Your task to perform on an android device: allow notifications from all sites in the chrome app Image 0: 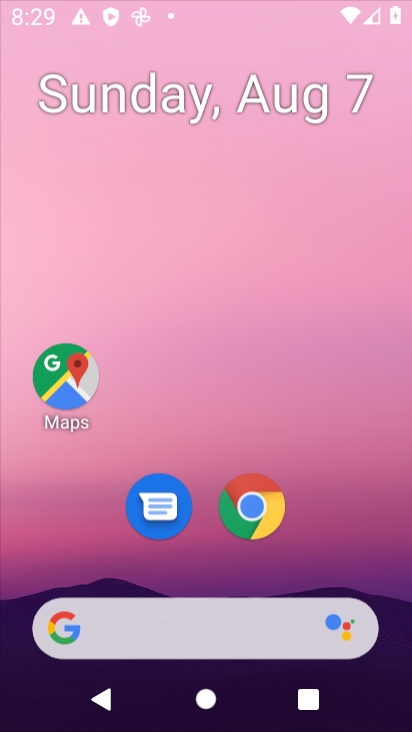
Step 0: press home button
Your task to perform on an android device: allow notifications from all sites in the chrome app Image 1: 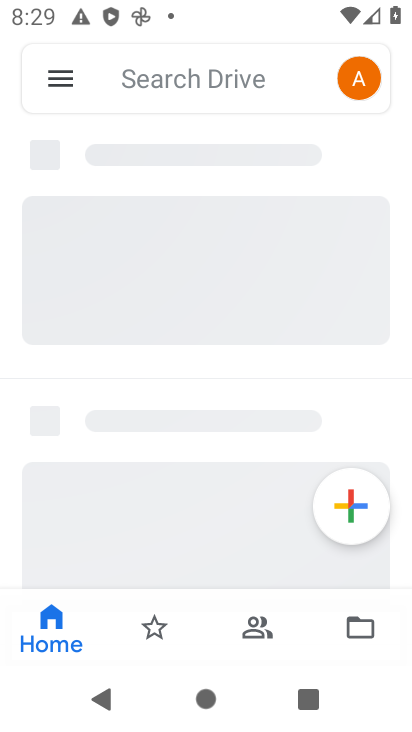
Step 1: click (313, 85)
Your task to perform on an android device: allow notifications from all sites in the chrome app Image 2: 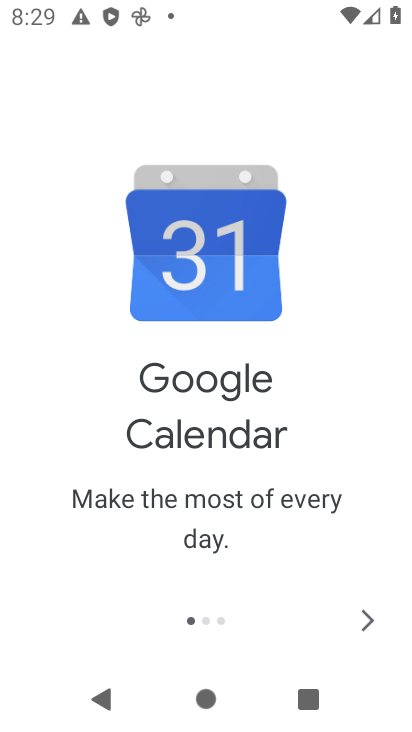
Step 2: press home button
Your task to perform on an android device: allow notifications from all sites in the chrome app Image 3: 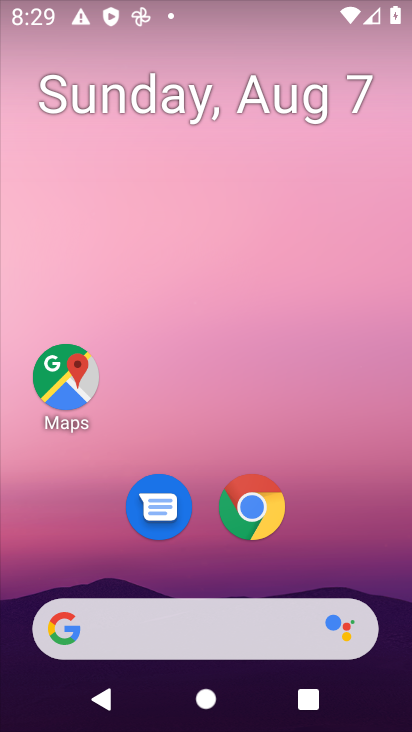
Step 3: click (256, 511)
Your task to perform on an android device: allow notifications from all sites in the chrome app Image 4: 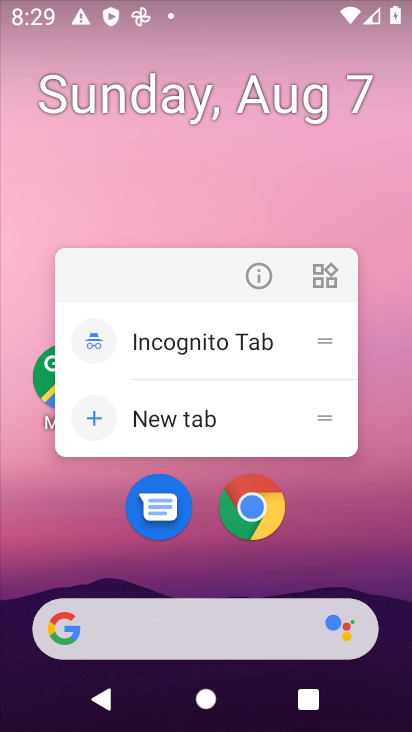
Step 4: click (256, 511)
Your task to perform on an android device: allow notifications from all sites in the chrome app Image 5: 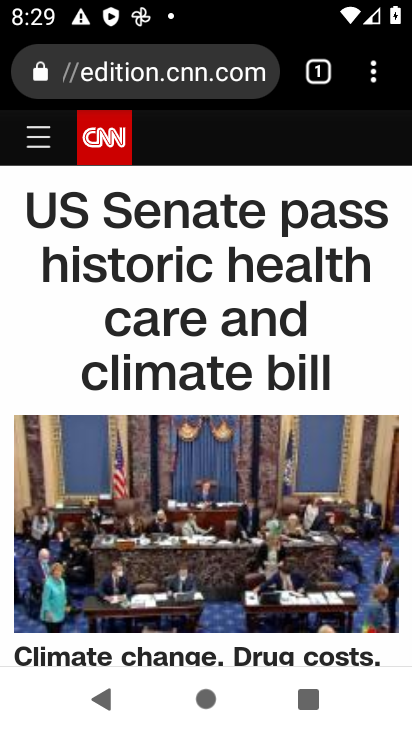
Step 5: drag from (371, 72) to (220, 495)
Your task to perform on an android device: allow notifications from all sites in the chrome app Image 6: 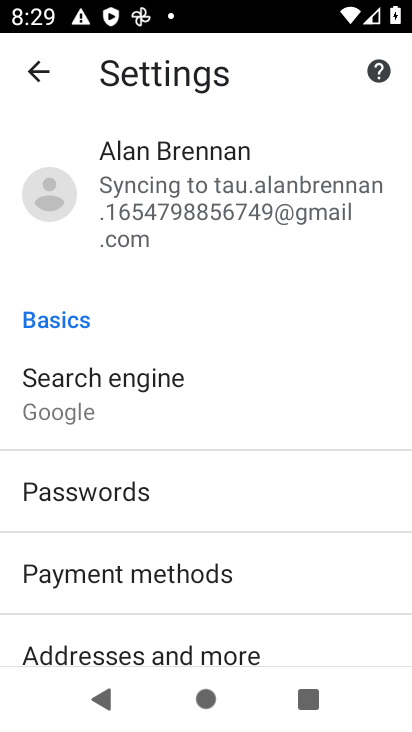
Step 6: drag from (310, 589) to (326, 54)
Your task to perform on an android device: allow notifications from all sites in the chrome app Image 7: 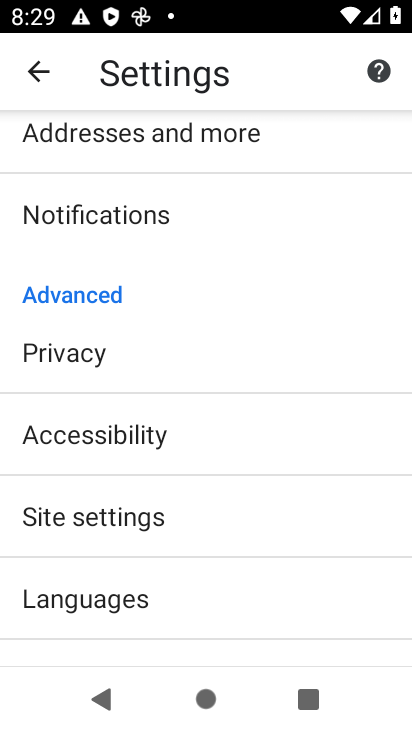
Step 7: click (149, 518)
Your task to perform on an android device: allow notifications from all sites in the chrome app Image 8: 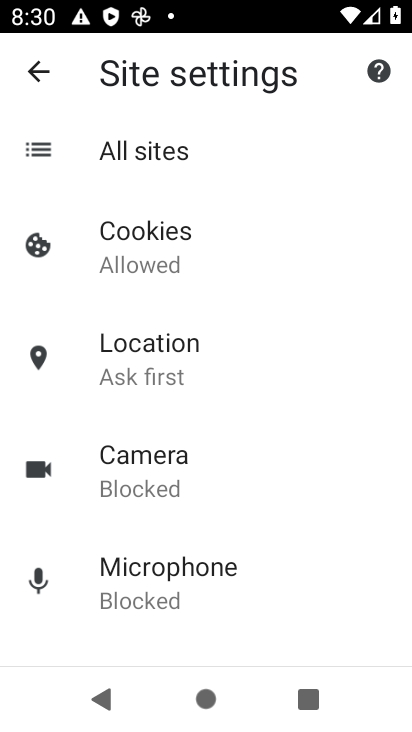
Step 8: drag from (316, 573) to (293, 227)
Your task to perform on an android device: allow notifications from all sites in the chrome app Image 9: 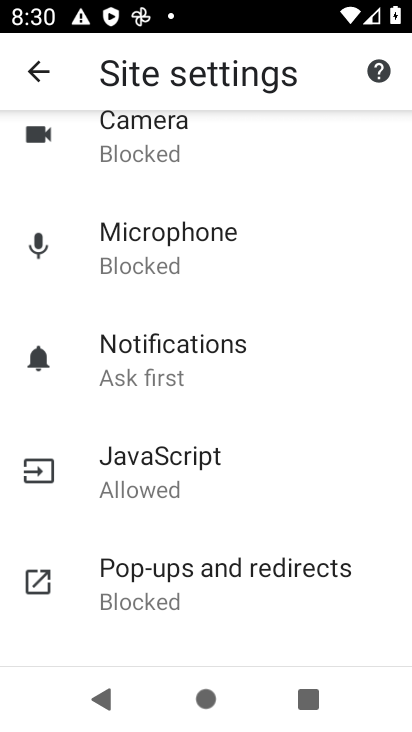
Step 9: click (149, 367)
Your task to perform on an android device: allow notifications from all sites in the chrome app Image 10: 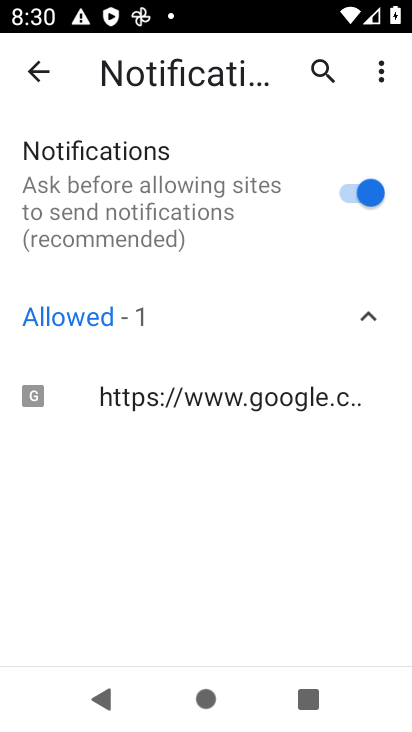
Step 10: task complete